Your task to perform on an android device: Open location settings Image 0: 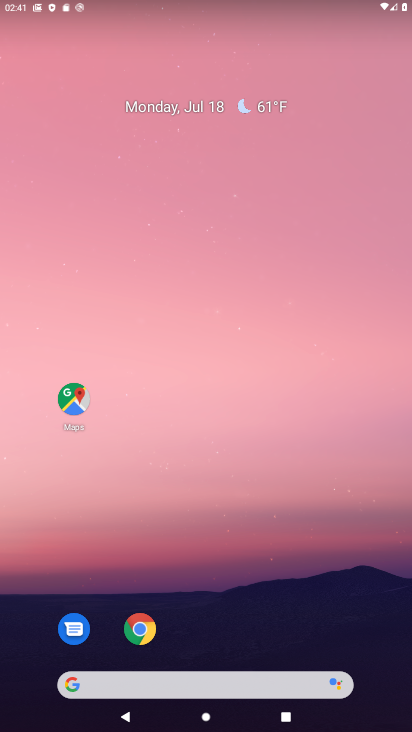
Step 0: press home button
Your task to perform on an android device: Open location settings Image 1: 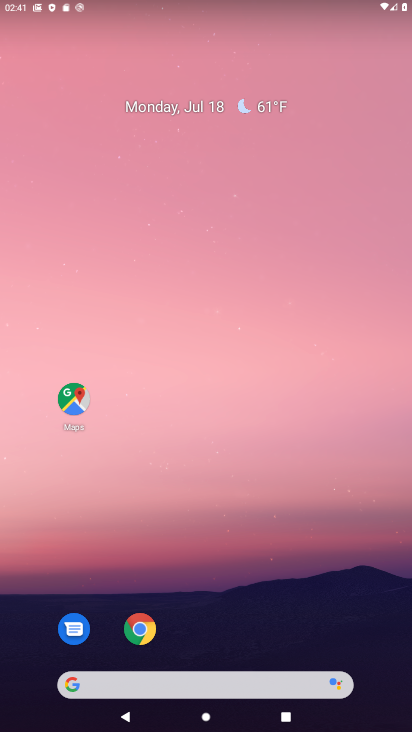
Step 1: drag from (210, 677) to (235, 30)
Your task to perform on an android device: Open location settings Image 2: 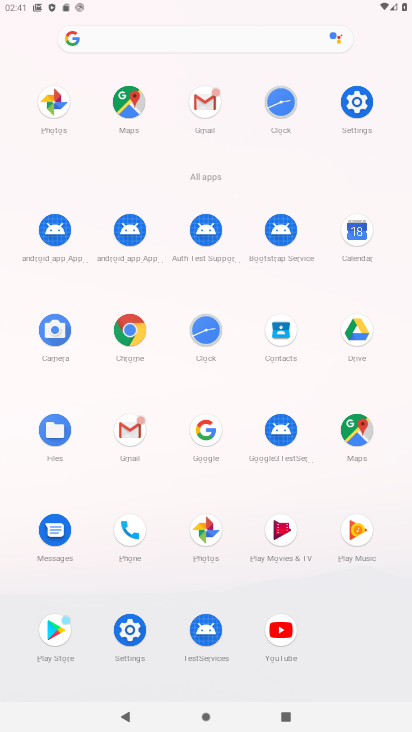
Step 2: click (357, 105)
Your task to perform on an android device: Open location settings Image 3: 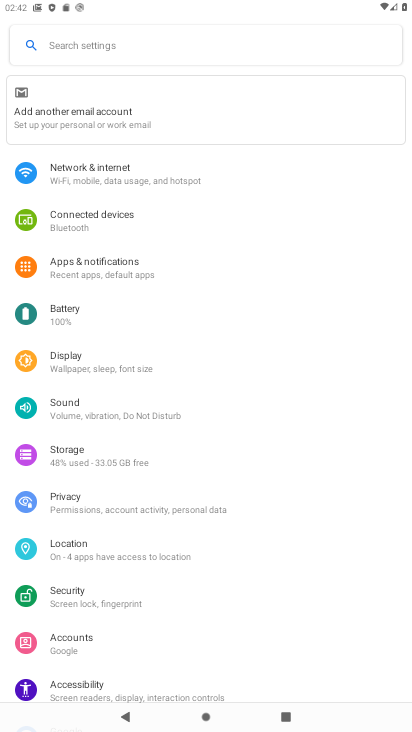
Step 3: click (82, 548)
Your task to perform on an android device: Open location settings Image 4: 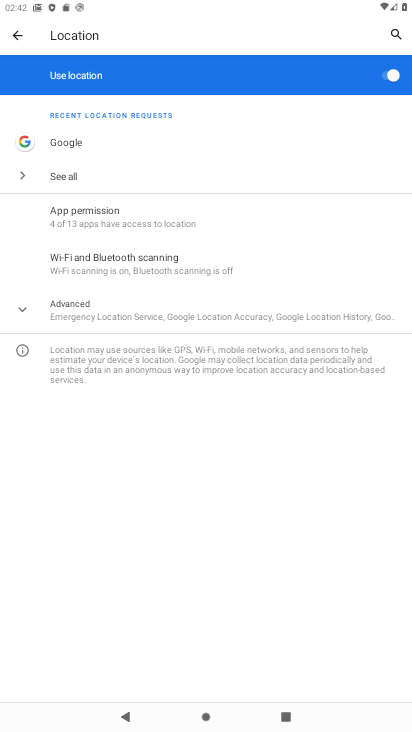
Step 4: task complete